Your task to perform on an android device: Play the last video I watched on Youtube Image 0: 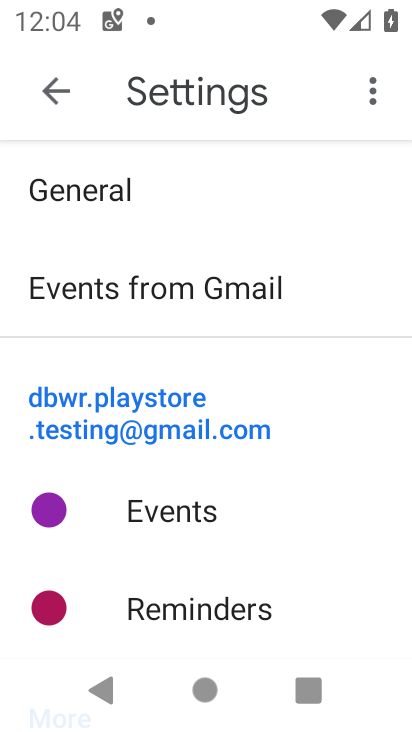
Step 0: press home button
Your task to perform on an android device: Play the last video I watched on Youtube Image 1: 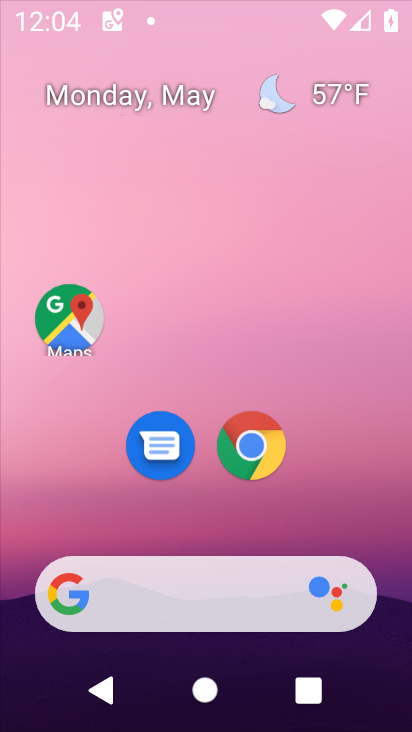
Step 1: press home button
Your task to perform on an android device: Play the last video I watched on Youtube Image 2: 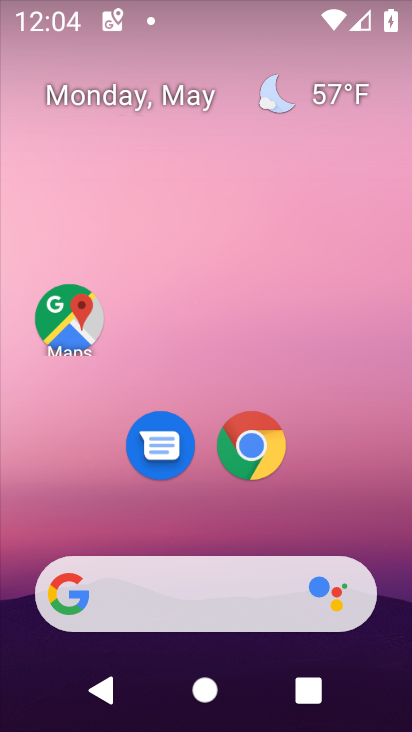
Step 2: drag from (317, 450) to (278, 165)
Your task to perform on an android device: Play the last video I watched on Youtube Image 3: 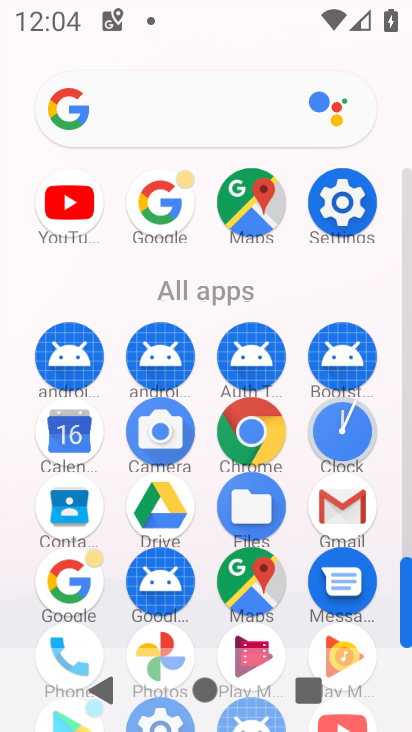
Step 3: click (48, 217)
Your task to perform on an android device: Play the last video I watched on Youtube Image 4: 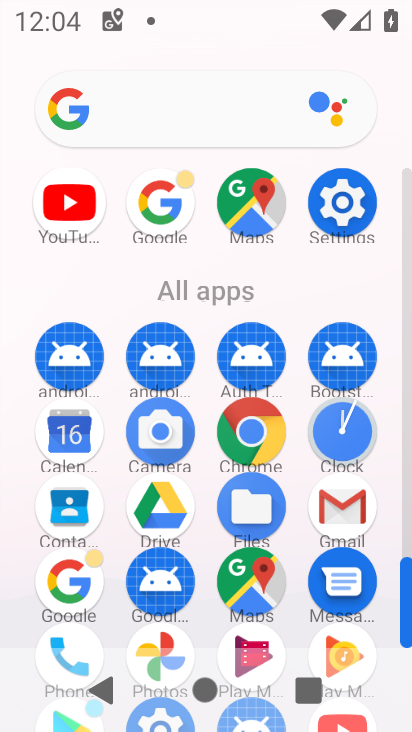
Step 4: click (48, 217)
Your task to perform on an android device: Play the last video I watched on Youtube Image 5: 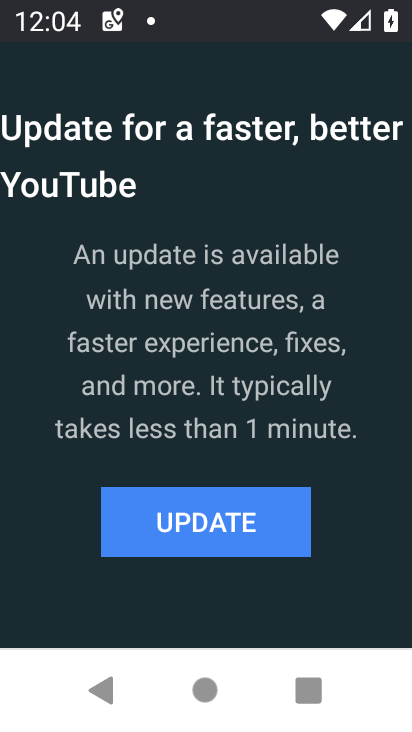
Step 5: click (197, 528)
Your task to perform on an android device: Play the last video I watched on Youtube Image 6: 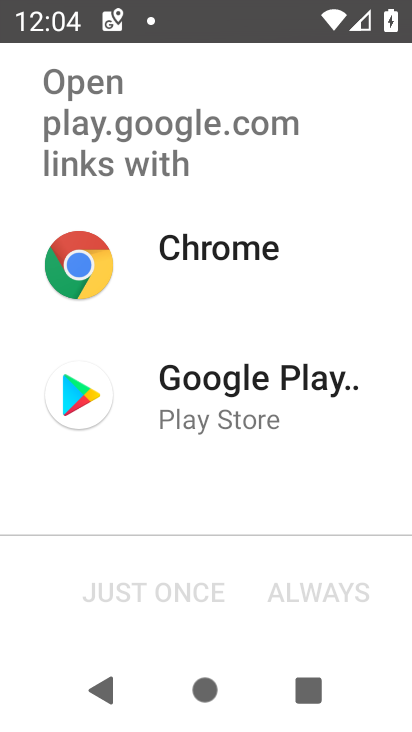
Step 6: click (223, 400)
Your task to perform on an android device: Play the last video I watched on Youtube Image 7: 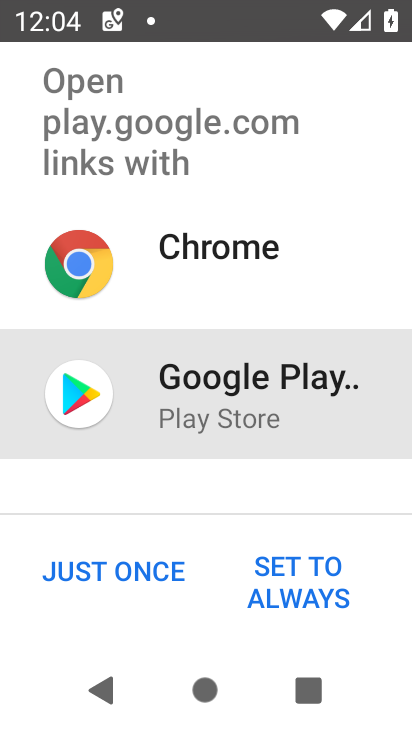
Step 7: click (283, 570)
Your task to perform on an android device: Play the last video I watched on Youtube Image 8: 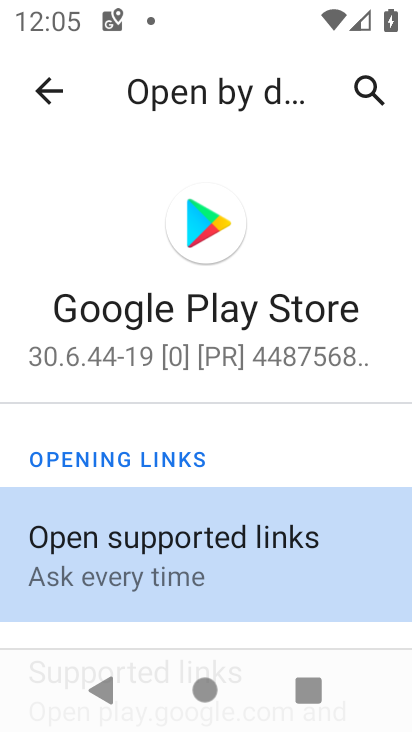
Step 8: press back button
Your task to perform on an android device: Play the last video I watched on Youtube Image 9: 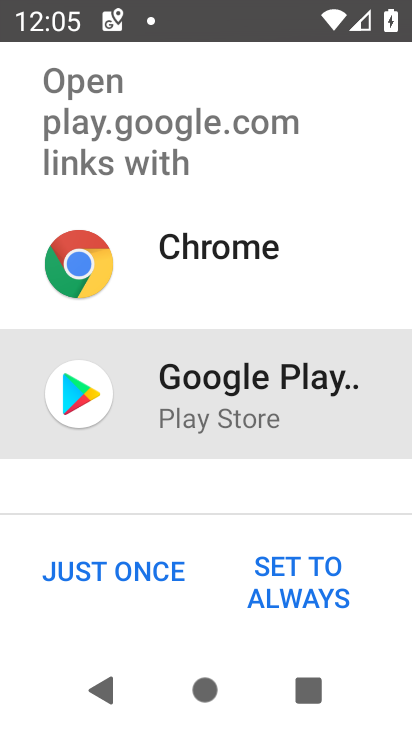
Step 9: click (263, 266)
Your task to perform on an android device: Play the last video I watched on Youtube Image 10: 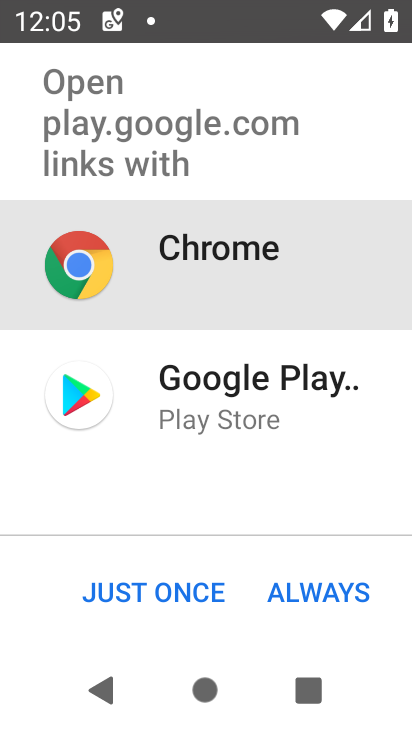
Step 10: click (297, 595)
Your task to perform on an android device: Play the last video I watched on Youtube Image 11: 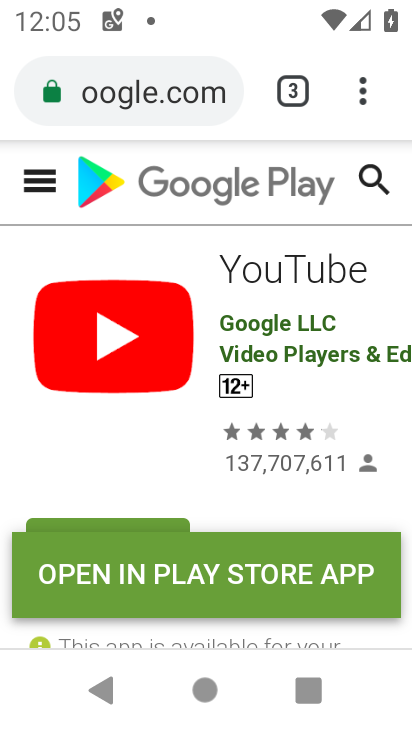
Step 11: drag from (200, 452) to (220, 252)
Your task to perform on an android device: Play the last video I watched on Youtube Image 12: 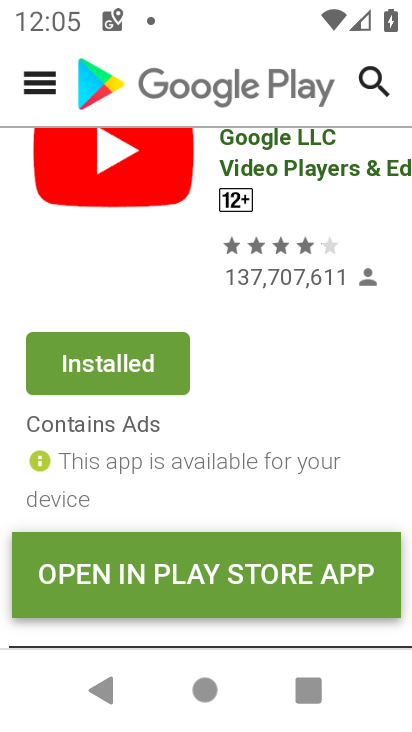
Step 12: click (127, 355)
Your task to perform on an android device: Play the last video I watched on Youtube Image 13: 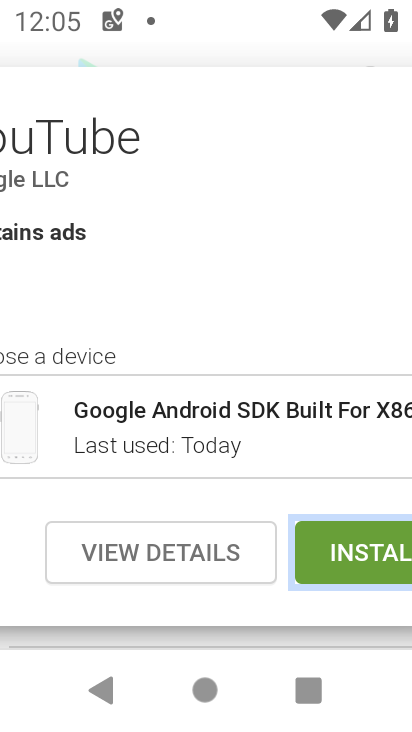
Step 13: drag from (206, 533) to (261, 21)
Your task to perform on an android device: Play the last video I watched on Youtube Image 14: 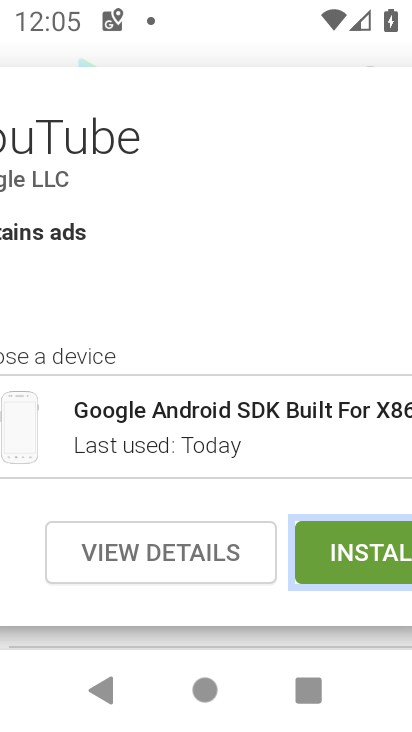
Step 14: drag from (151, 193) to (201, 549)
Your task to perform on an android device: Play the last video I watched on Youtube Image 15: 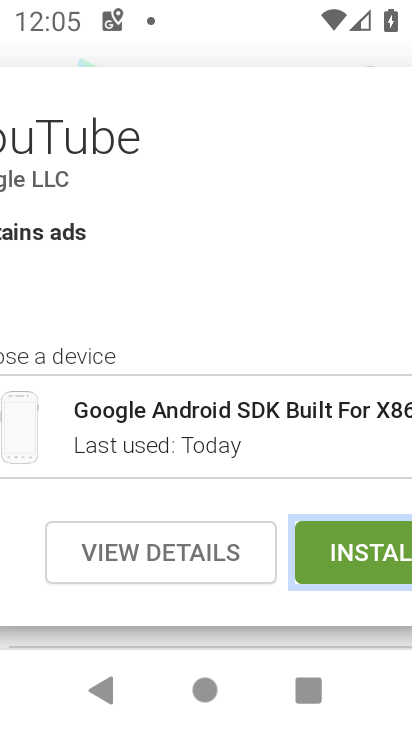
Step 15: click (344, 556)
Your task to perform on an android device: Play the last video I watched on Youtube Image 16: 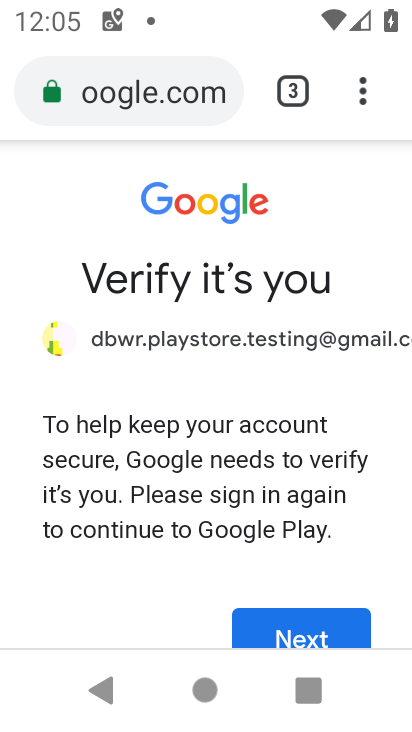
Step 16: press home button
Your task to perform on an android device: Play the last video I watched on Youtube Image 17: 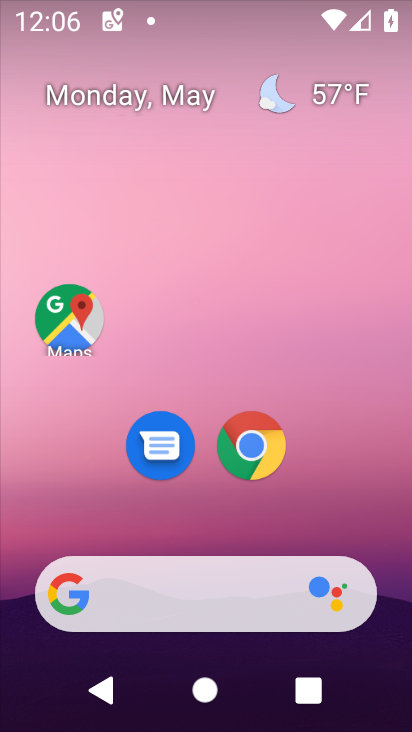
Step 17: drag from (346, 382) to (326, 237)
Your task to perform on an android device: Play the last video I watched on Youtube Image 18: 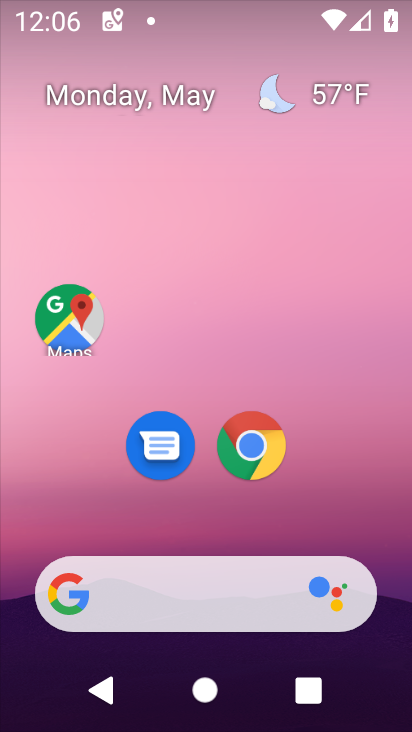
Step 18: drag from (365, 527) to (227, 104)
Your task to perform on an android device: Play the last video I watched on Youtube Image 19: 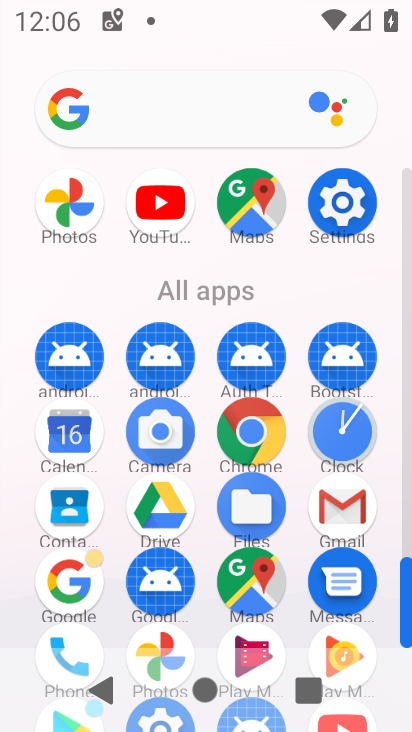
Step 19: click (151, 207)
Your task to perform on an android device: Play the last video I watched on Youtube Image 20: 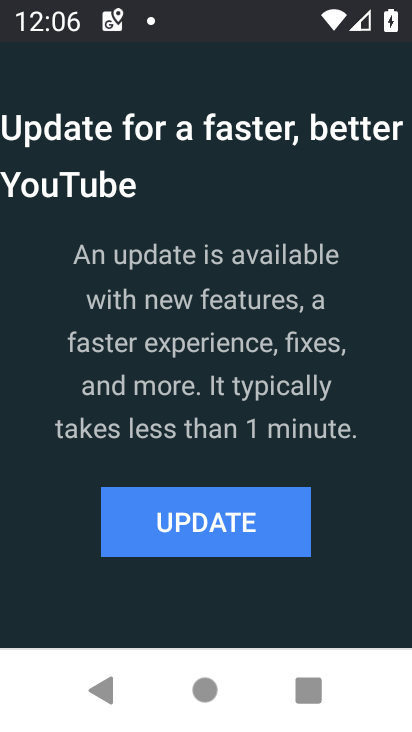
Step 20: task complete